Your task to perform on an android device: Open the map Image 0: 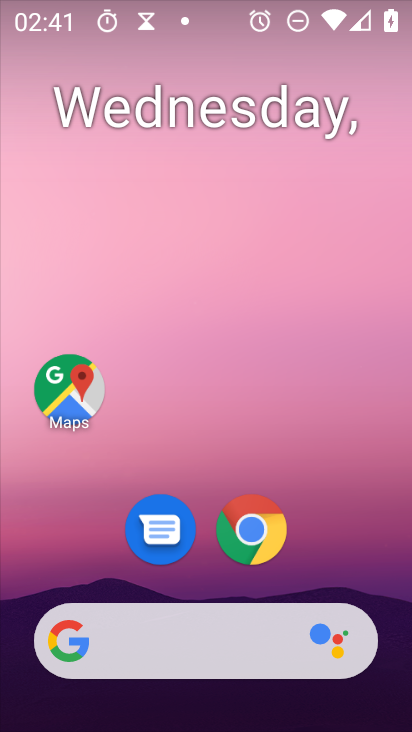
Step 0: drag from (290, 577) to (305, 35)
Your task to perform on an android device: Open the map Image 1: 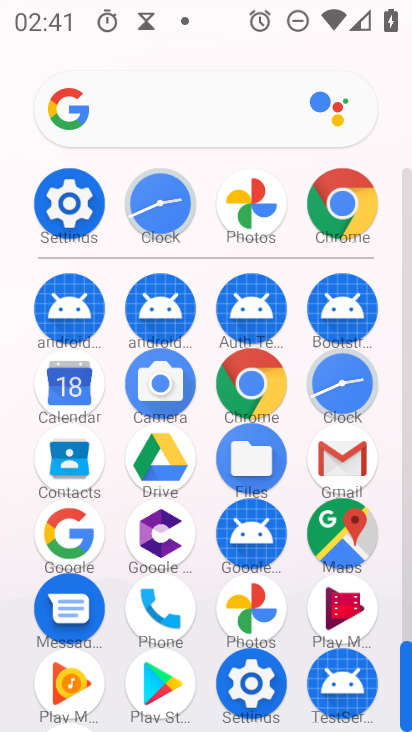
Step 1: click (341, 550)
Your task to perform on an android device: Open the map Image 2: 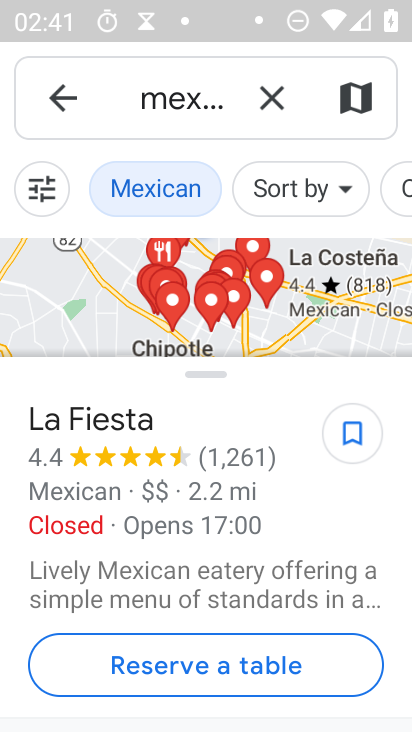
Step 2: task complete